Your task to perform on an android device: Open battery settings Image 0: 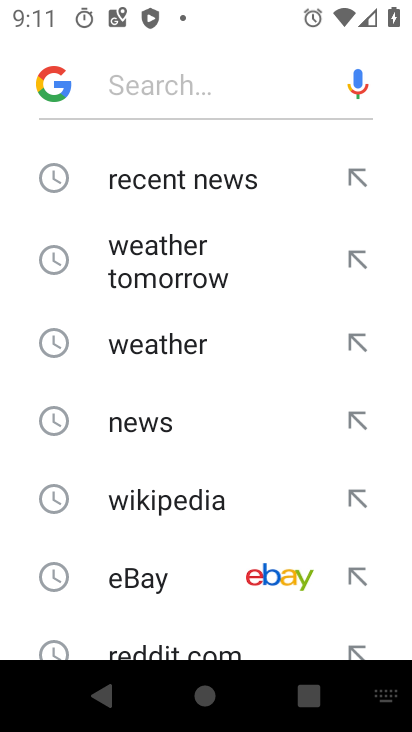
Step 0: press home button
Your task to perform on an android device: Open battery settings Image 1: 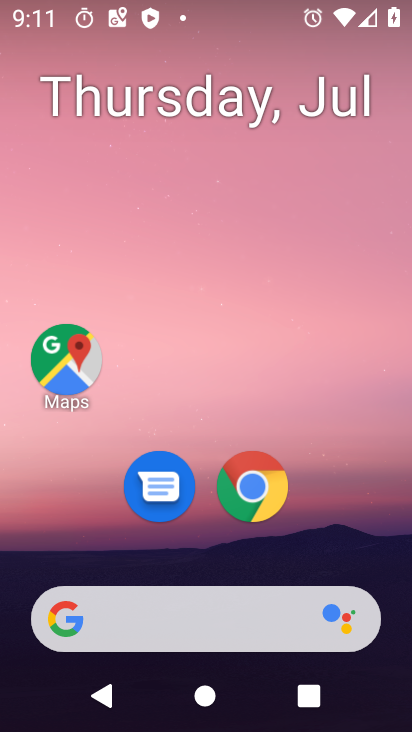
Step 1: drag from (184, 628) to (346, 169)
Your task to perform on an android device: Open battery settings Image 2: 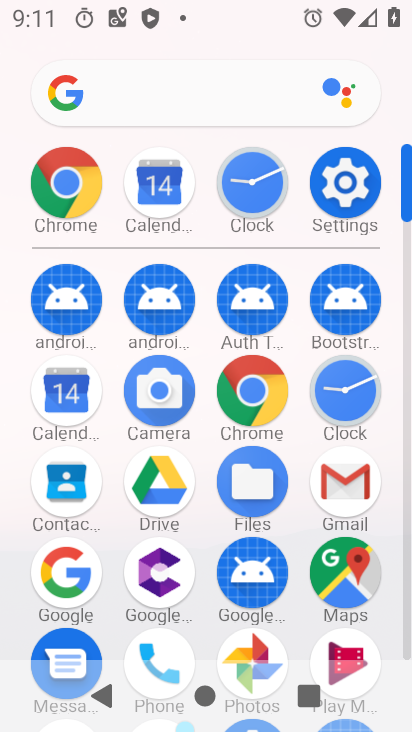
Step 2: click (336, 216)
Your task to perform on an android device: Open battery settings Image 3: 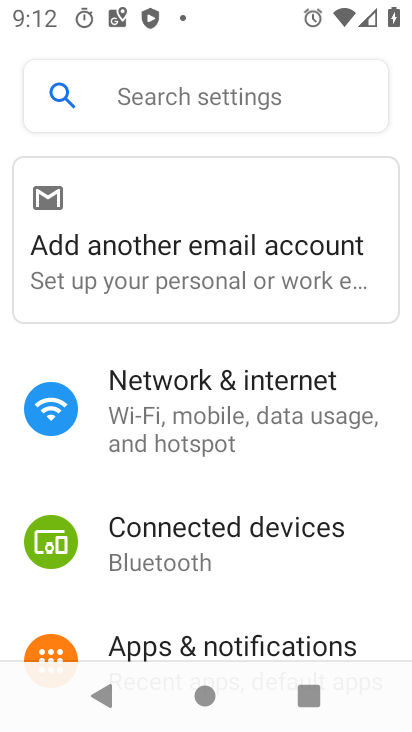
Step 3: drag from (233, 592) to (335, 96)
Your task to perform on an android device: Open battery settings Image 4: 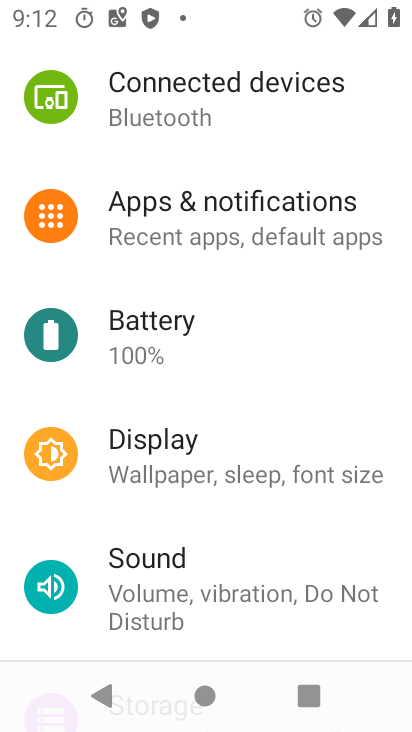
Step 4: click (247, 341)
Your task to perform on an android device: Open battery settings Image 5: 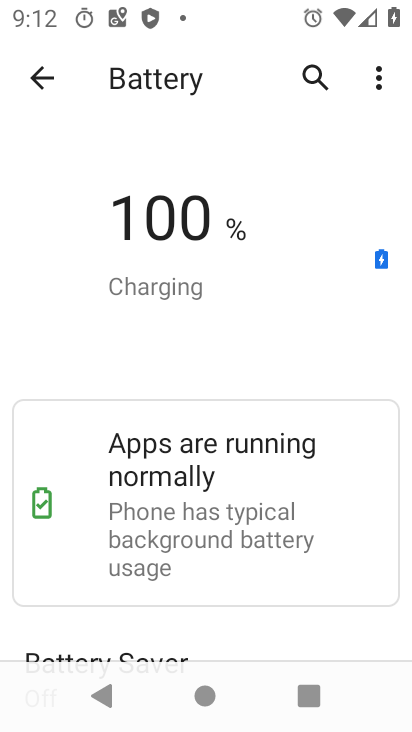
Step 5: task complete